Your task to perform on an android device: turn notification dots on Image 0: 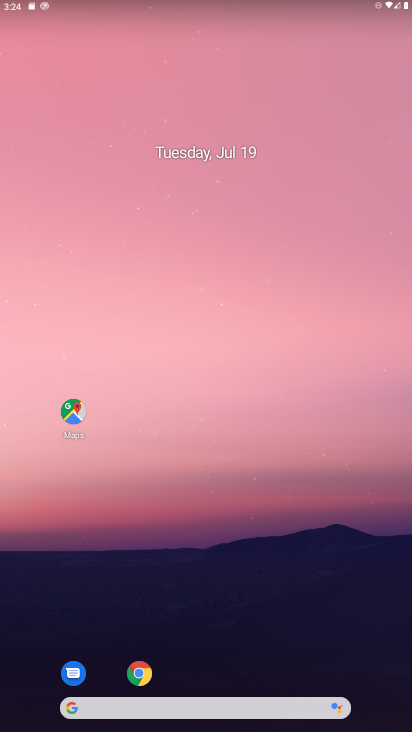
Step 0: drag from (219, 668) to (265, 66)
Your task to perform on an android device: turn notification dots on Image 1: 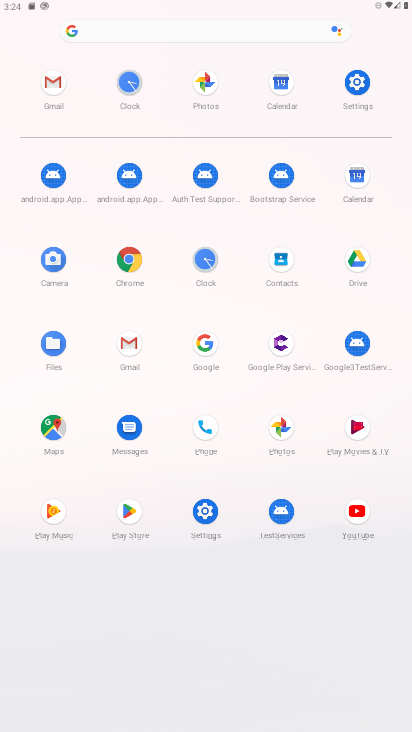
Step 1: click (202, 512)
Your task to perform on an android device: turn notification dots on Image 2: 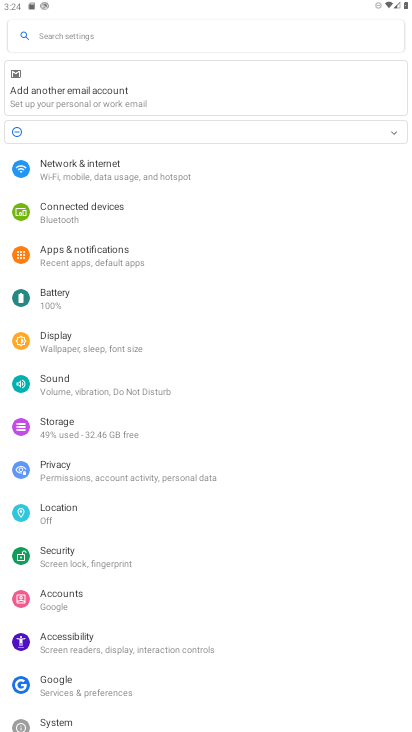
Step 2: click (127, 267)
Your task to perform on an android device: turn notification dots on Image 3: 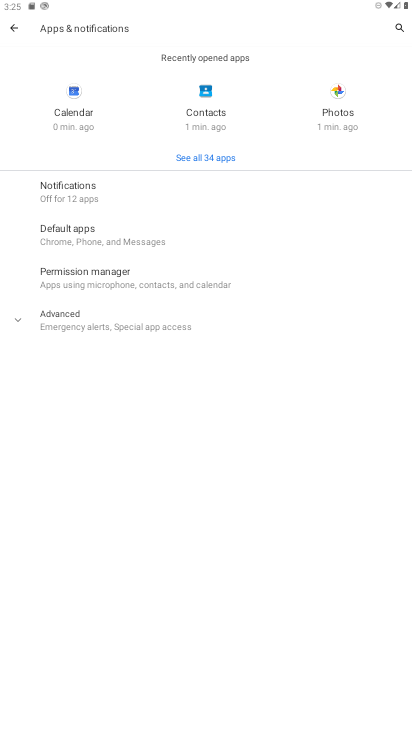
Step 3: click (98, 187)
Your task to perform on an android device: turn notification dots on Image 4: 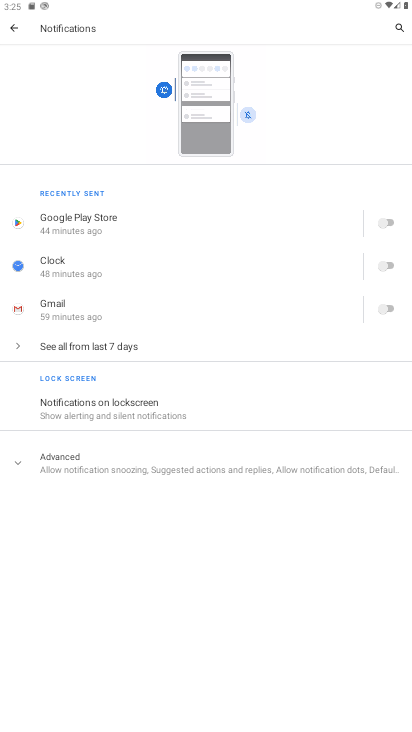
Step 4: click (85, 467)
Your task to perform on an android device: turn notification dots on Image 5: 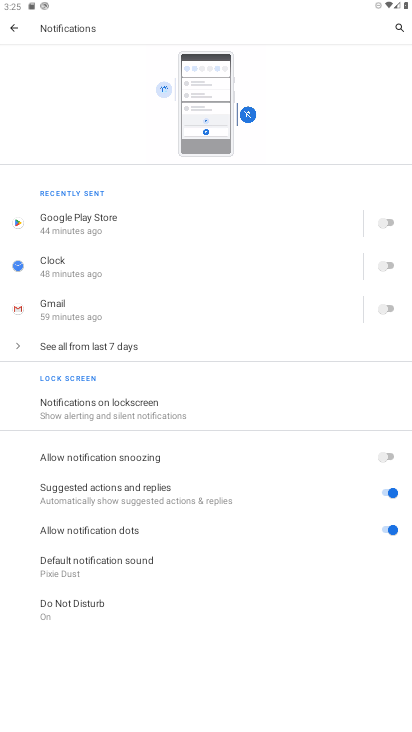
Step 5: task complete